Your task to perform on an android device: Open notification settings Image 0: 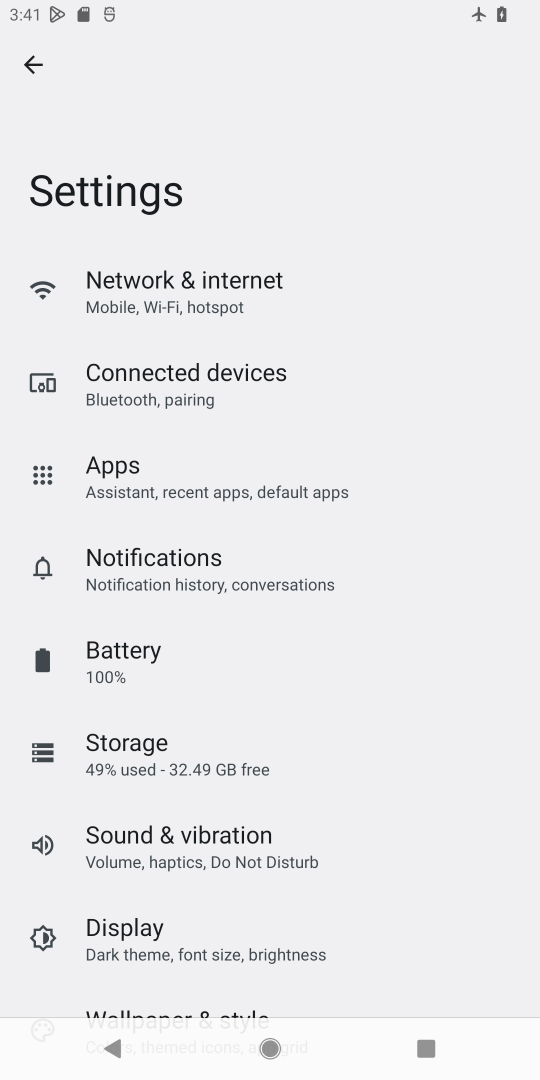
Step 0: click (190, 583)
Your task to perform on an android device: Open notification settings Image 1: 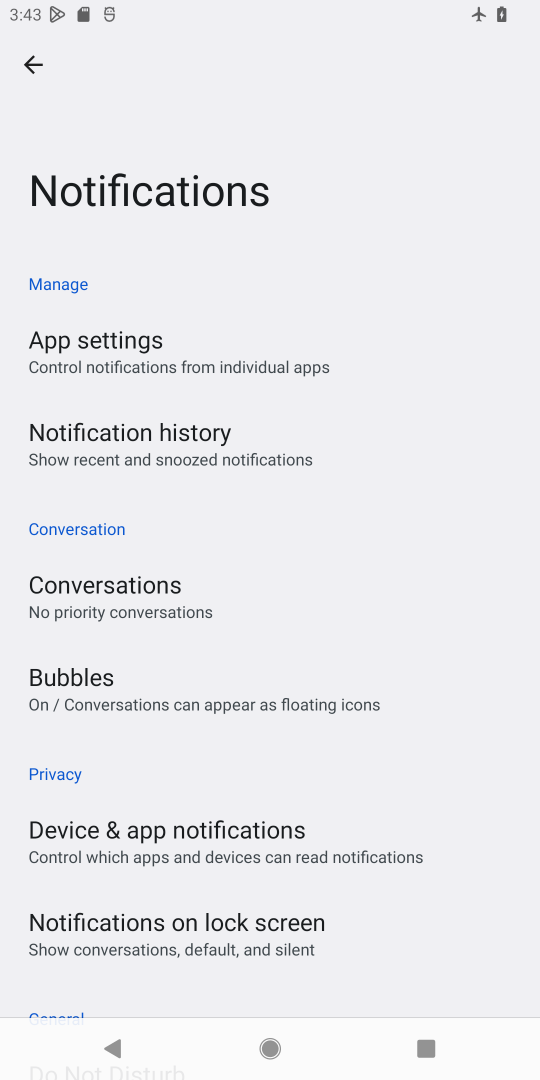
Step 1: task complete